Your task to perform on an android device: turn off javascript in the chrome app Image 0: 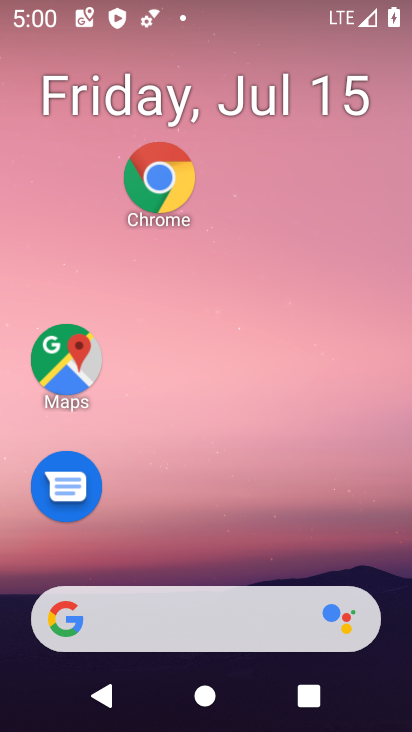
Step 0: click (150, 180)
Your task to perform on an android device: turn off javascript in the chrome app Image 1: 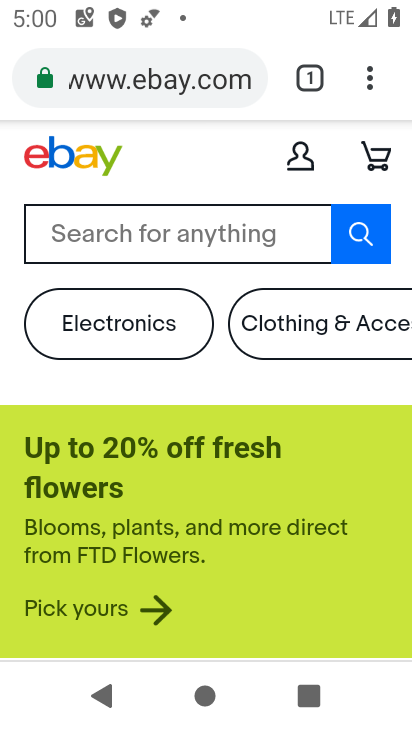
Step 1: click (373, 85)
Your task to perform on an android device: turn off javascript in the chrome app Image 2: 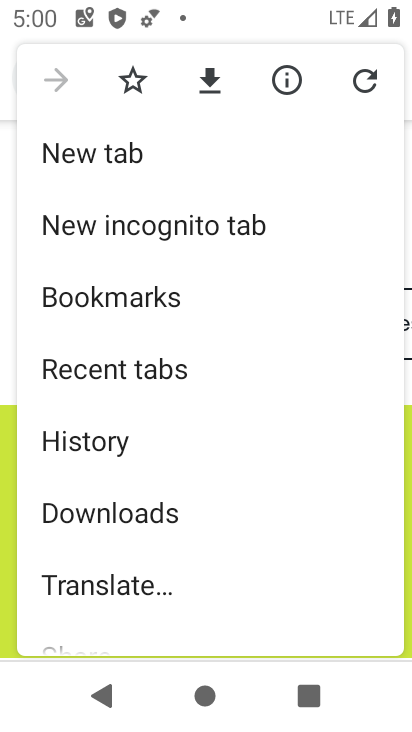
Step 2: drag from (151, 434) to (180, 295)
Your task to perform on an android device: turn off javascript in the chrome app Image 3: 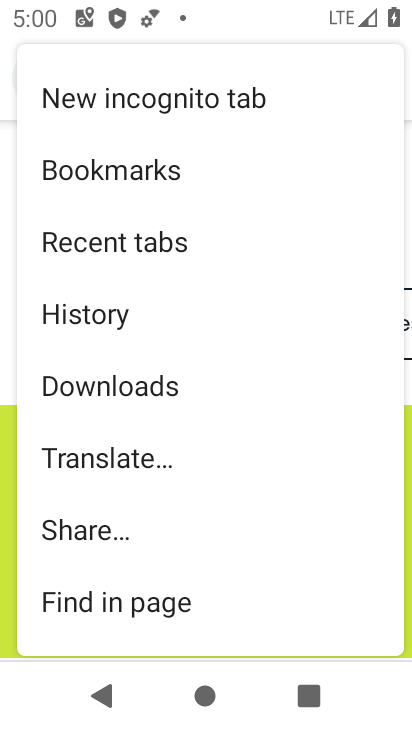
Step 3: click (183, 270)
Your task to perform on an android device: turn off javascript in the chrome app Image 4: 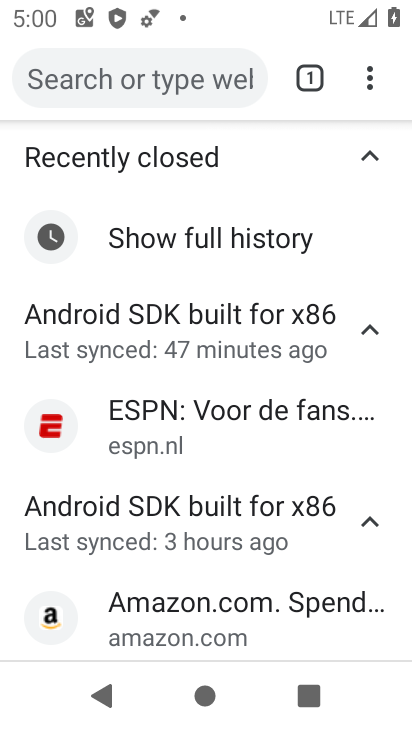
Step 4: click (364, 86)
Your task to perform on an android device: turn off javascript in the chrome app Image 5: 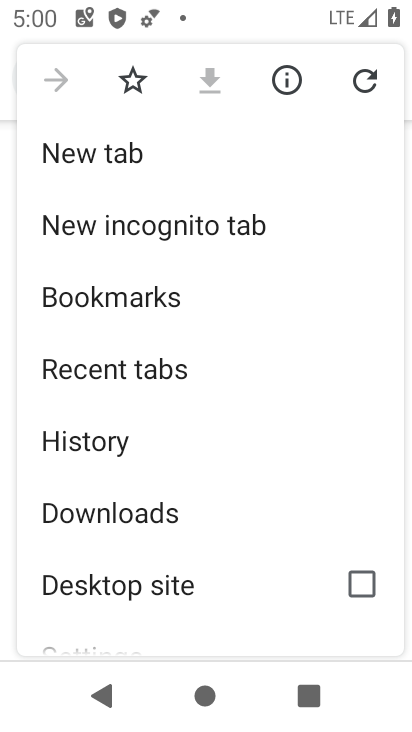
Step 5: drag from (227, 483) to (216, 173)
Your task to perform on an android device: turn off javascript in the chrome app Image 6: 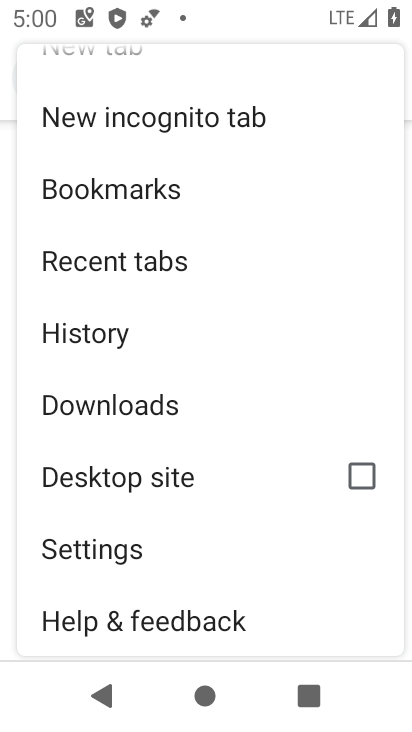
Step 6: click (64, 542)
Your task to perform on an android device: turn off javascript in the chrome app Image 7: 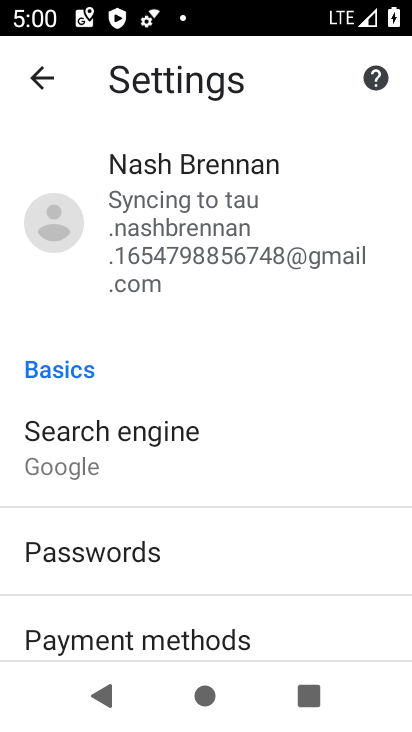
Step 7: drag from (210, 497) to (232, 52)
Your task to perform on an android device: turn off javascript in the chrome app Image 8: 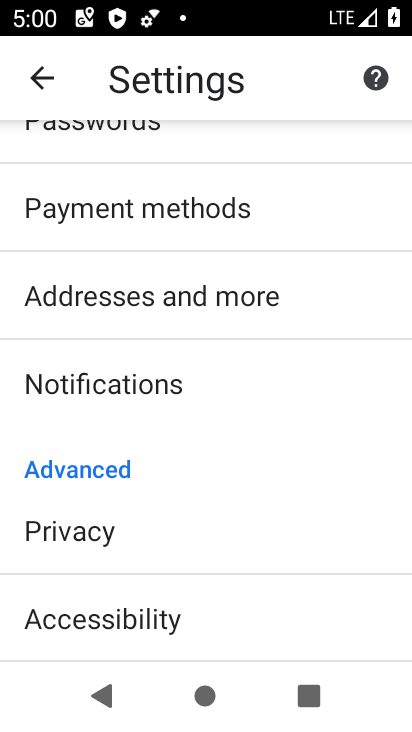
Step 8: drag from (200, 589) to (218, 325)
Your task to perform on an android device: turn off javascript in the chrome app Image 9: 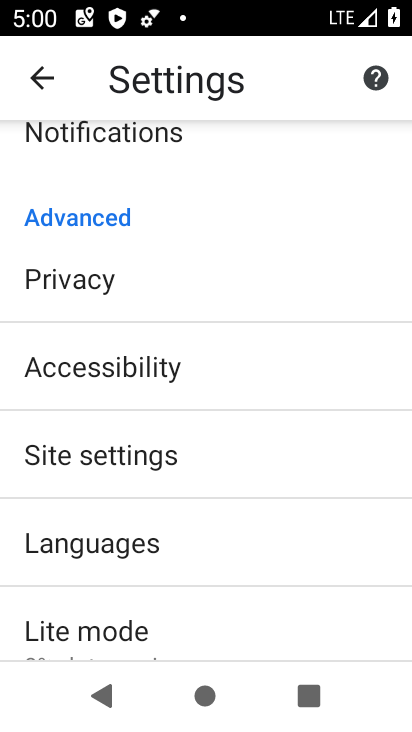
Step 9: click (147, 461)
Your task to perform on an android device: turn off javascript in the chrome app Image 10: 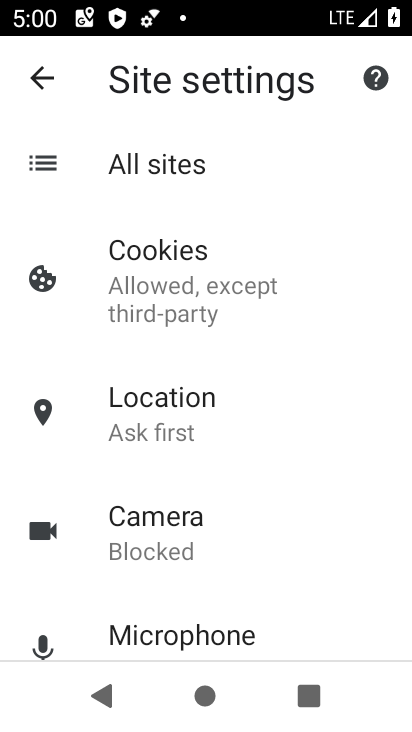
Step 10: drag from (249, 513) to (303, 132)
Your task to perform on an android device: turn off javascript in the chrome app Image 11: 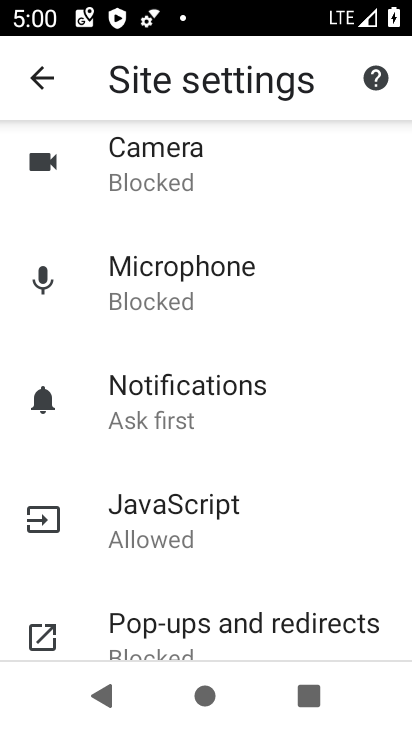
Step 11: click (181, 524)
Your task to perform on an android device: turn off javascript in the chrome app Image 12: 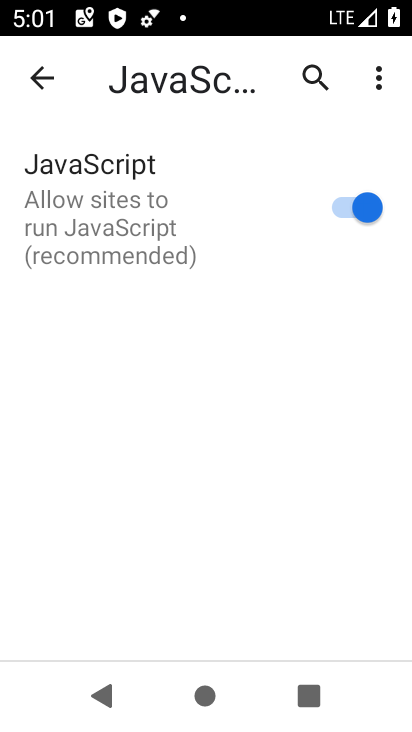
Step 12: click (335, 218)
Your task to perform on an android device: turn off javascript in the chrome app Image 13: 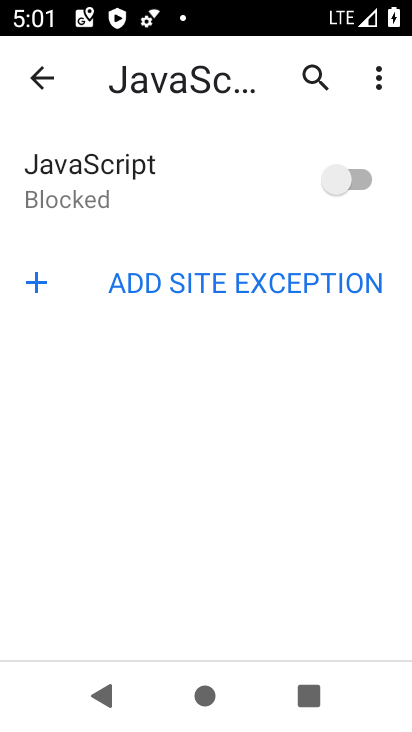
Step 13: task complete